Your task to perform on an android device: Open Maps and search for coffee Image 0: 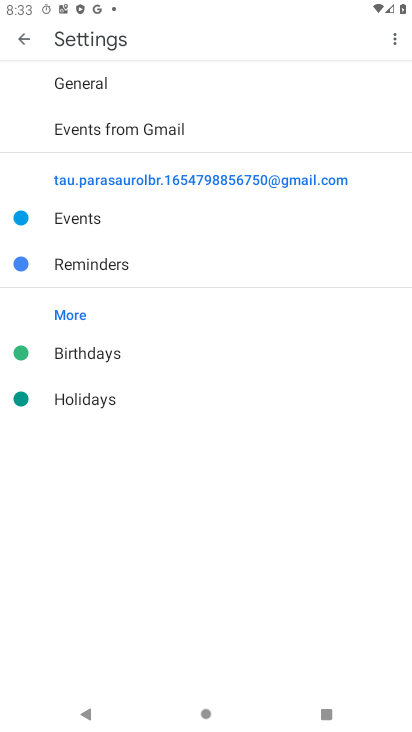
Step 0: press back button
Your task to perform on an android device: Open Maps and search for coffee Image 1: 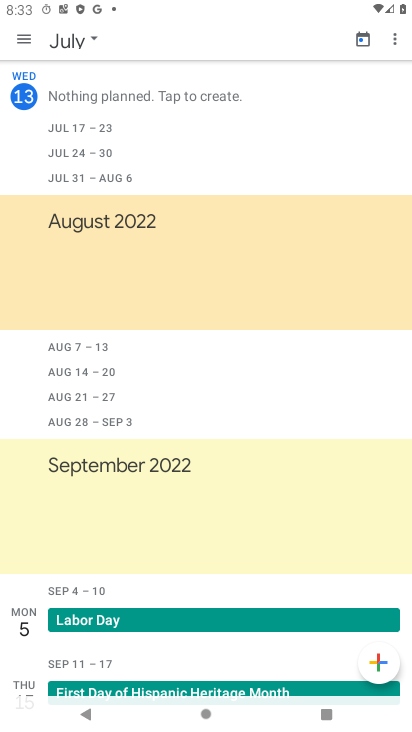
Step 1: press home button
Your task to perform on an android device: Open Maps and search for coffee Image 2: 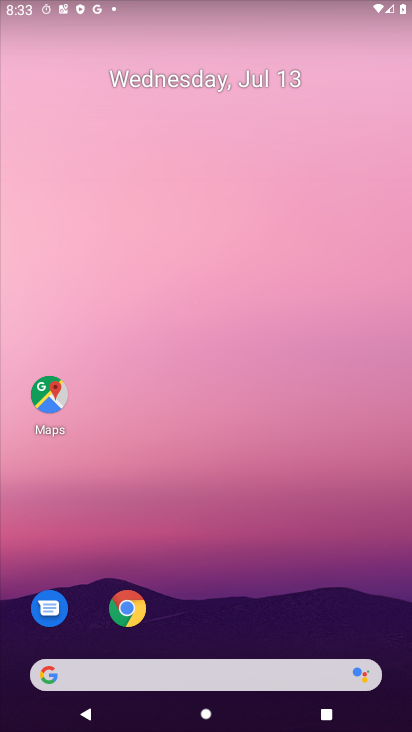
Step 2: drag from (306, 612) to (247, 4)
Your task to perform on an android device: Open Maps and search for coffee Image 3: 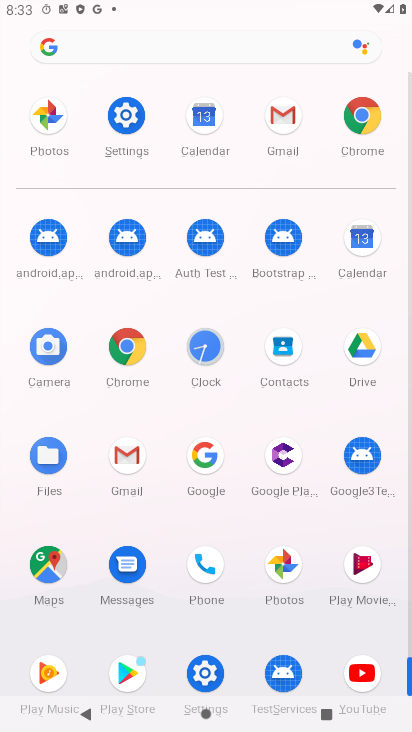
Step 3: click (55, 572)
Your task to perform on an android device: Open Maps and search for coffee Image 4: 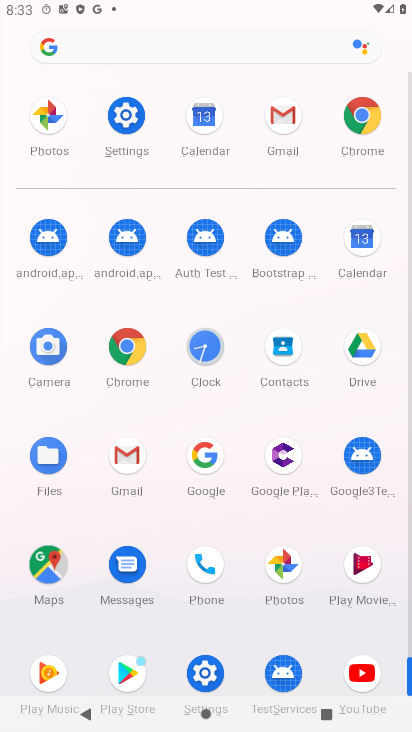
Step 4: click (55, 570)
Your task to perform on an android device: Open Maps and search for coffee Image 5: 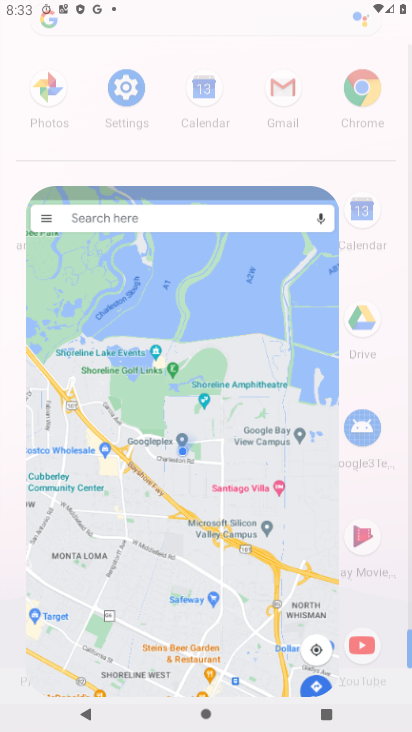
Step 5: click (55, 570)
Your task to perform on an android device: Open Maps and search for coffee Image 6: 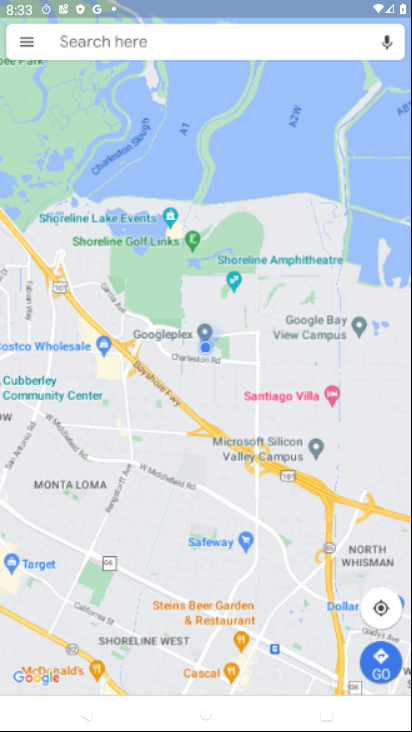
Step 6: click (55, 572)
Your task to perform on an android device: Open Maps and search for coffee Image 7: 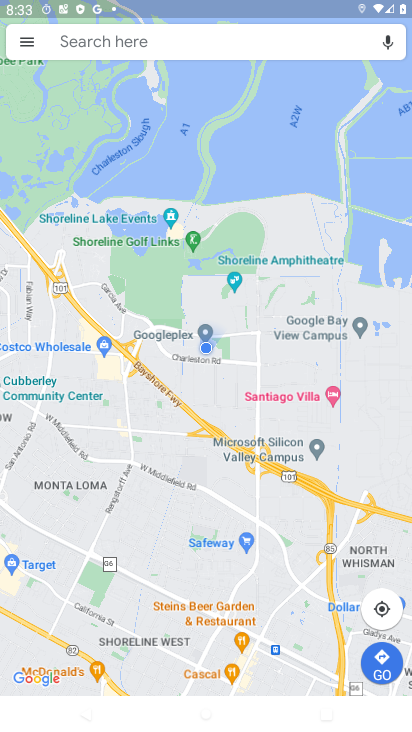
Step 7: click (67, 31)
Your task to perform on an android device: Open Maps and search for coffee Image 8: 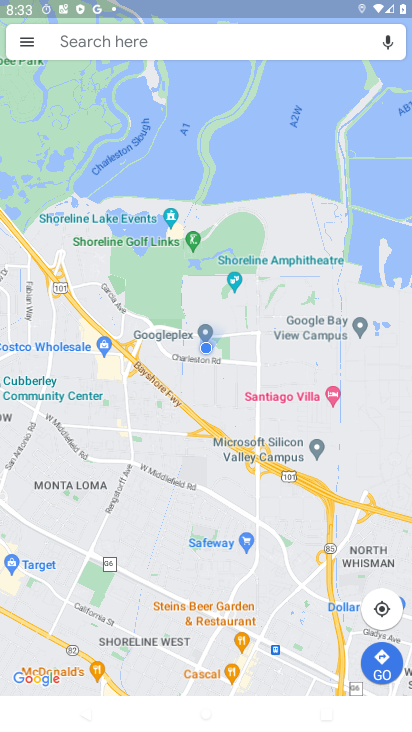
Step 8: click (78, 42)
Your task to perform on an android device: Open Maps and search for coffee Image 9: 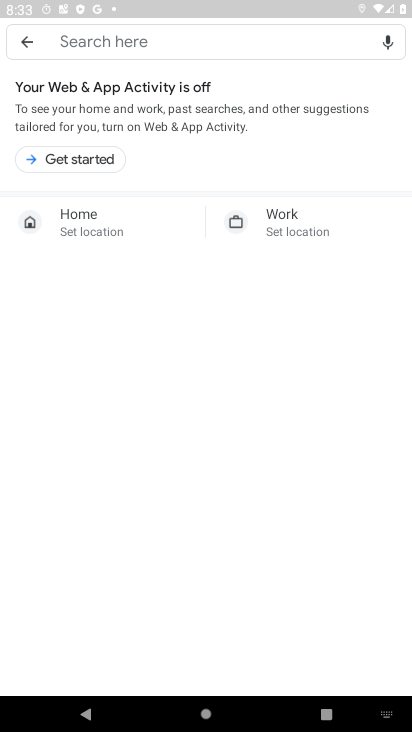
Step 9: click (80, 42)
Your task to perform on an android device: Open Maps and search for coffee Image 10: 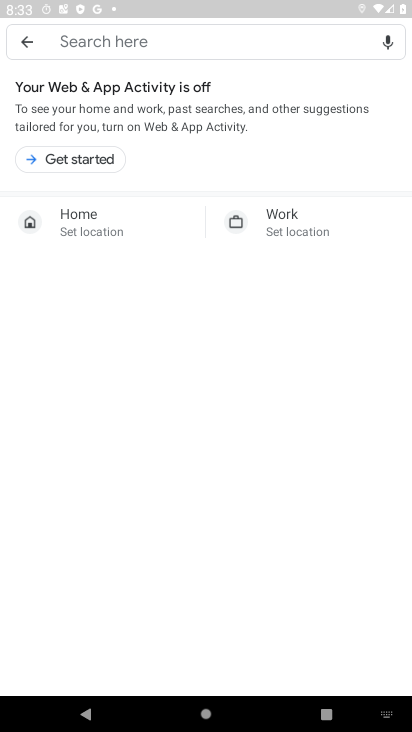
Step 10: type "coffee"
Your task to perform on an android device: Open Maps and search for coffee Image 11: 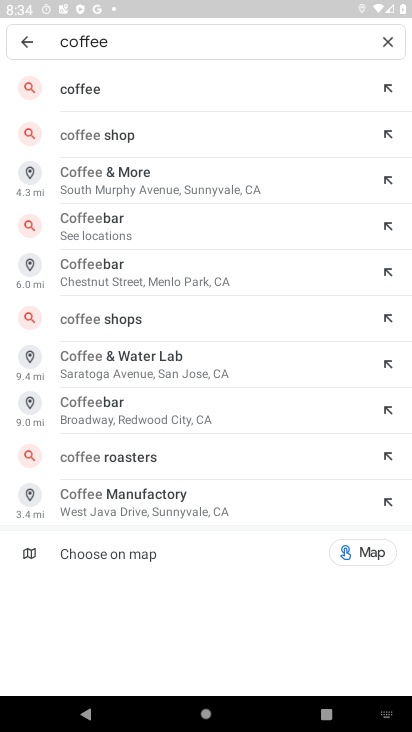
Step 11: click (108, 95)
Your task to perform on an android device: Open Maps and search for coffee Image 12: 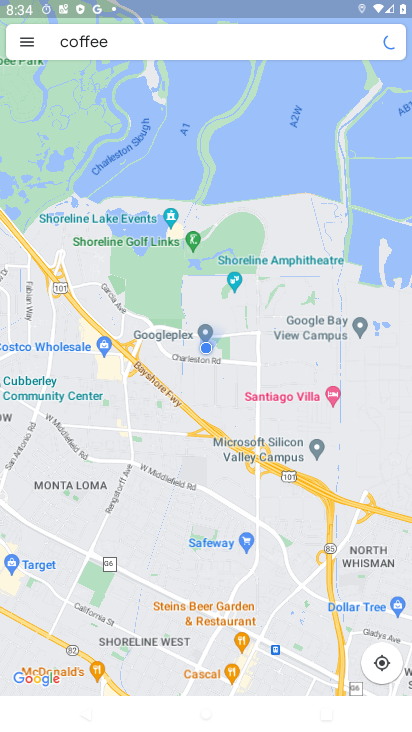
Step 12: task complete